Your task to perform on an android device: Is it going to rain today? Image 0: 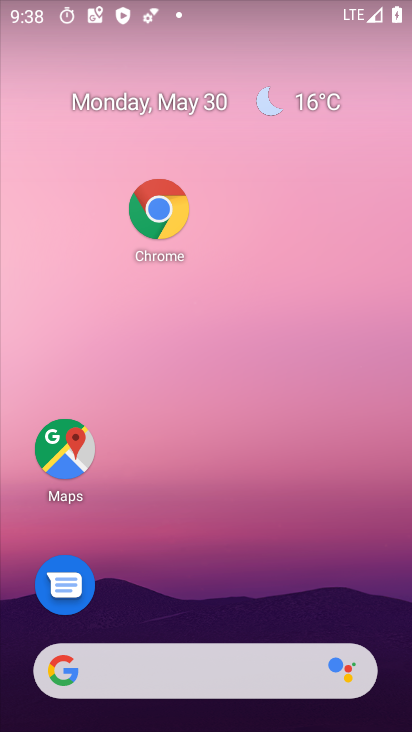
Step 0: click (253, 68)
Your task to perform on an android device: Is it going to rain today? Image 1: 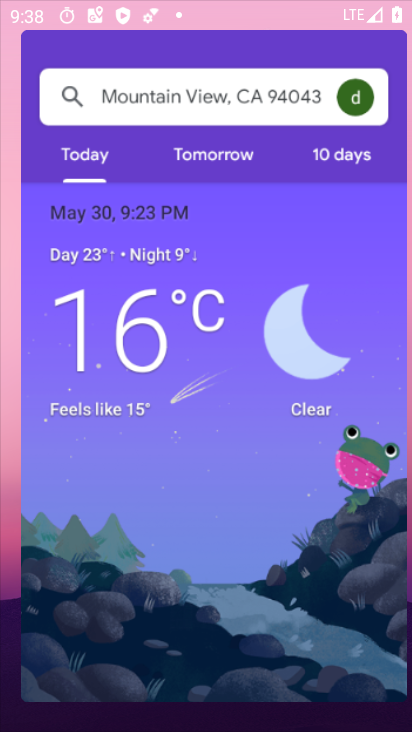
Step 1: drag from (216, 614) to (310, 159)
Your task to perform on an android device: Is it going to rain today? Image 2: 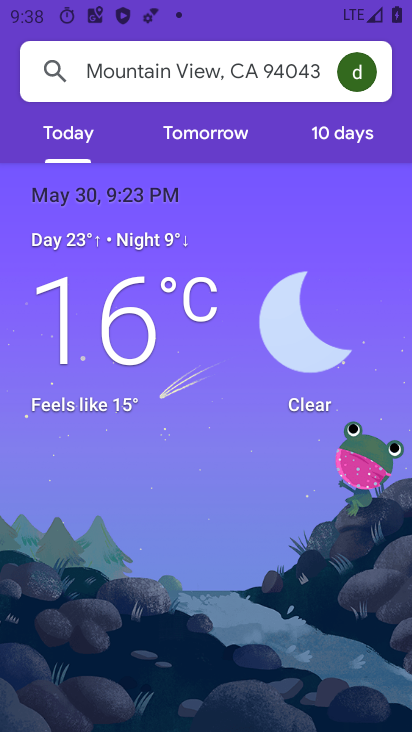
Step 2: press home button
Your task to perform on an android device: Is it going to rain today? Image 3: 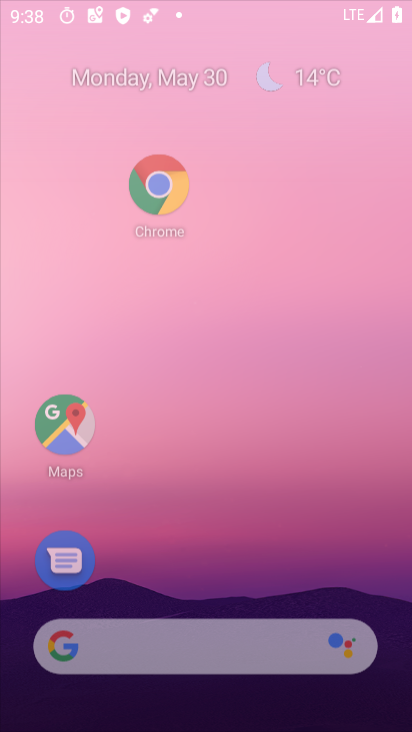
Step 3: drag from (204, 556) to (380, 41)
Your task to perform on an android device: Is it going to rain today? Image 4: 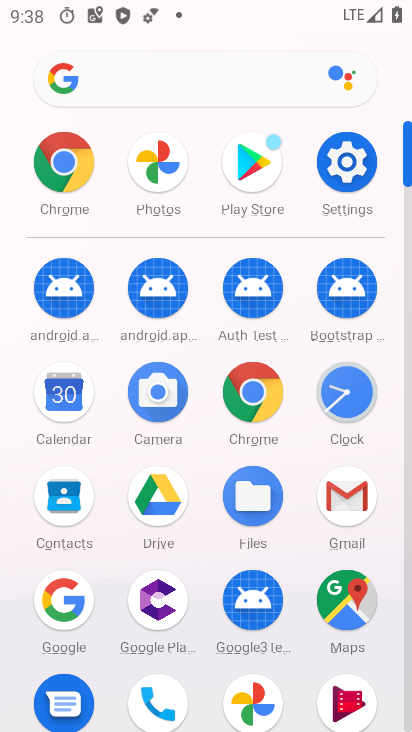
Step 4: click (171, 86)
Your task to perform on an android device: Is it going to rain today? Image 5: 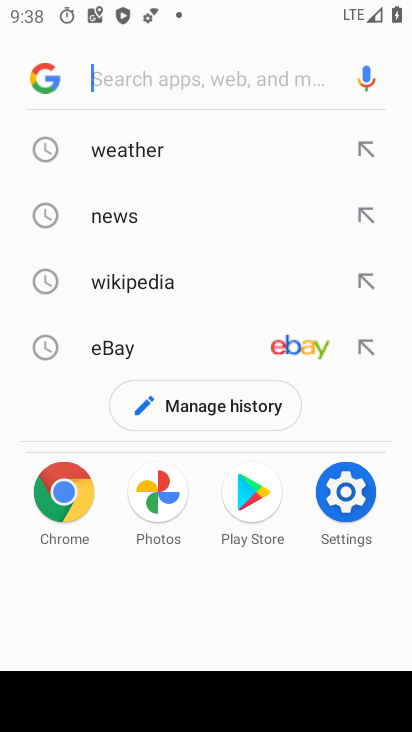
Step 5: type "rain today"
Your task to perform on an android device: Is it going to rain today? Image 6: 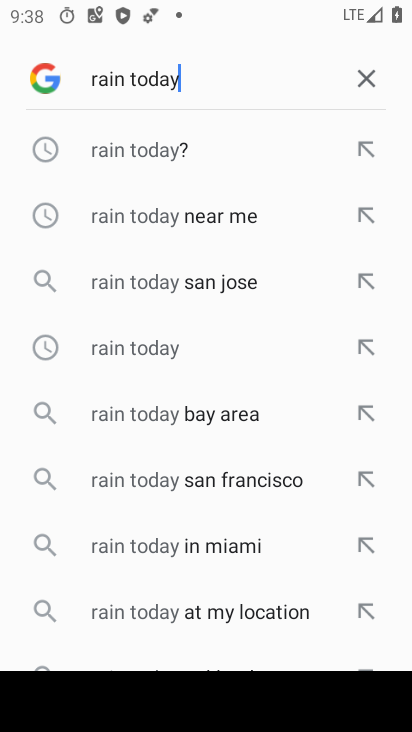
Step 6: click (153, 167)
Your task to perform on an android device: Is it going to rain today? Image 7: 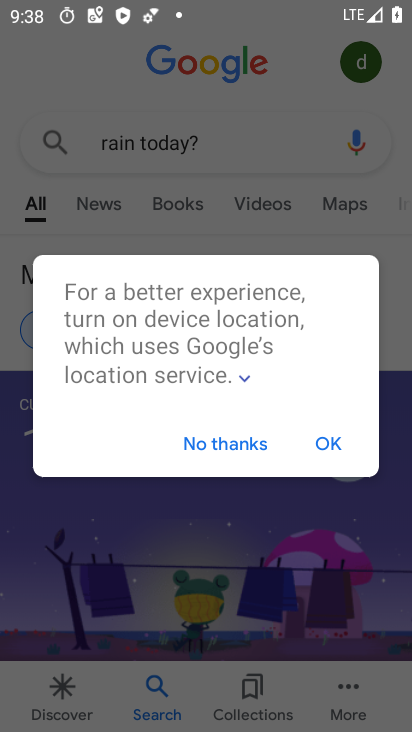
Step 7: click (341, 438)
Your task to perform on an android device: Is it going to rain today? Image 8: 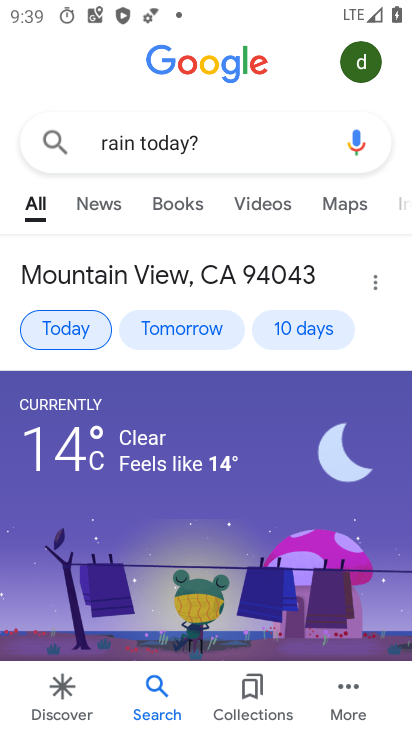
Step 8: task complete